Your task to perform on an android device: toggle notification dots Image 0: 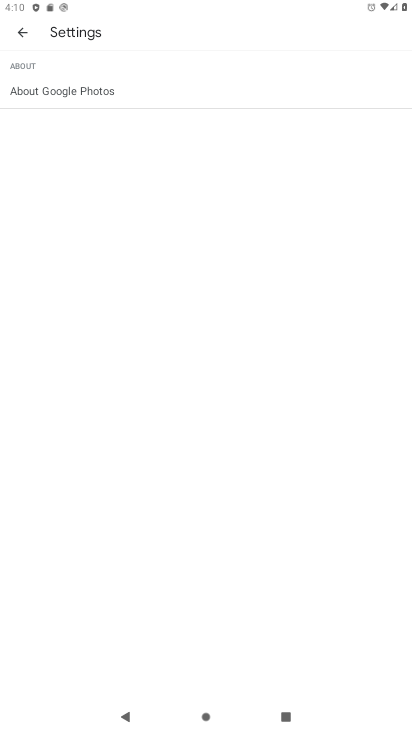
Step 0: press home button
Your task to perform on an android device: toggle notification dots Image 1: 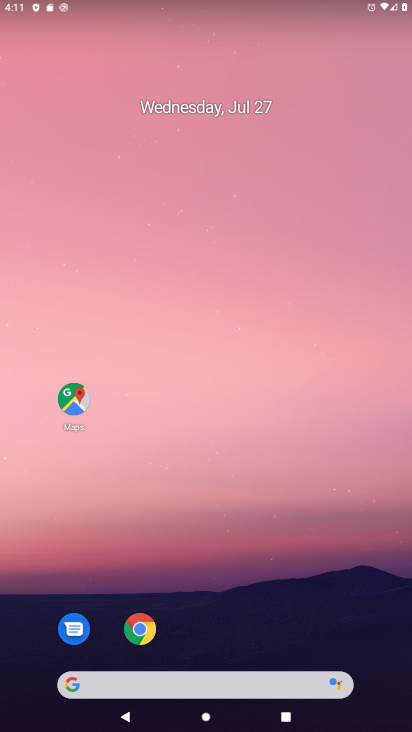
Step 1: drag from (290, 487) to (17, 210)
Your task to perform on an android device: toggle notification dots Image 2: 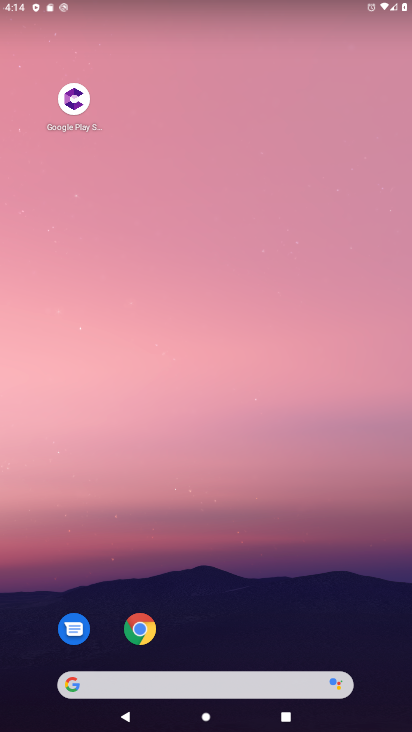
Step 2: drag from (356, 628) to (111, 36)
Your task to perform on an android device: toggle notification dots Image 3: 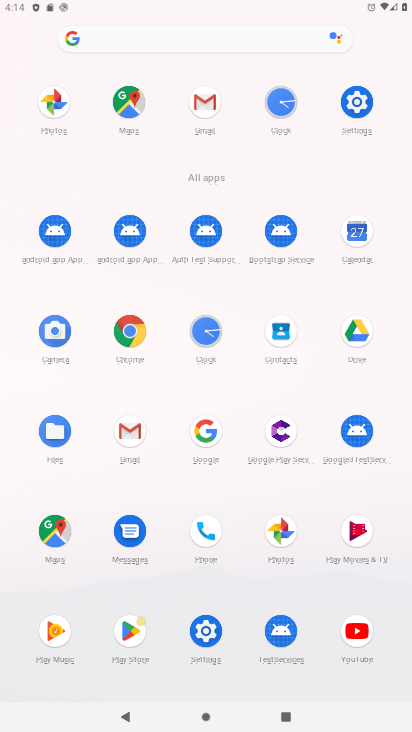
Step 3: click (372, 116)
Your task to perform on an android device: toggle notification dots Image 4: 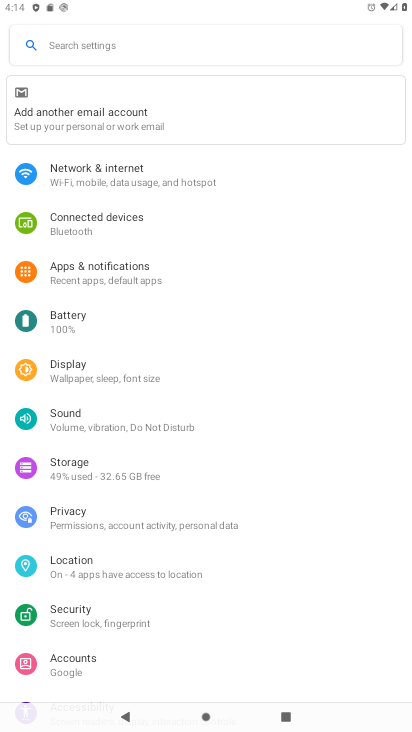
Step 4: click (86, 268)
Your task to perform on an android device: toggle notification dots Image 5: 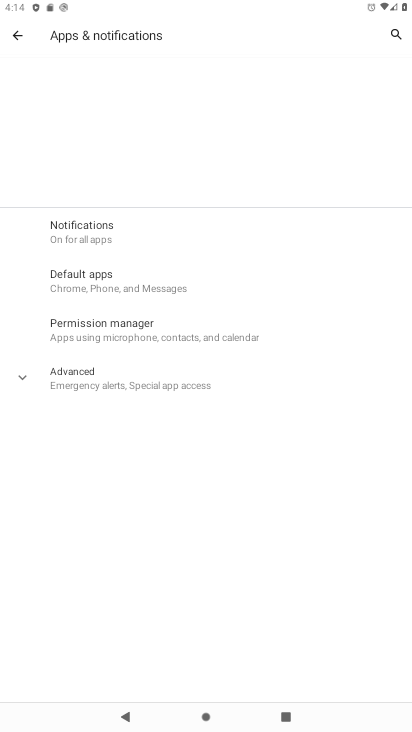
Step 5: click (73, 232)
Your task to perform on an android device: toggle notification dots Image 6: 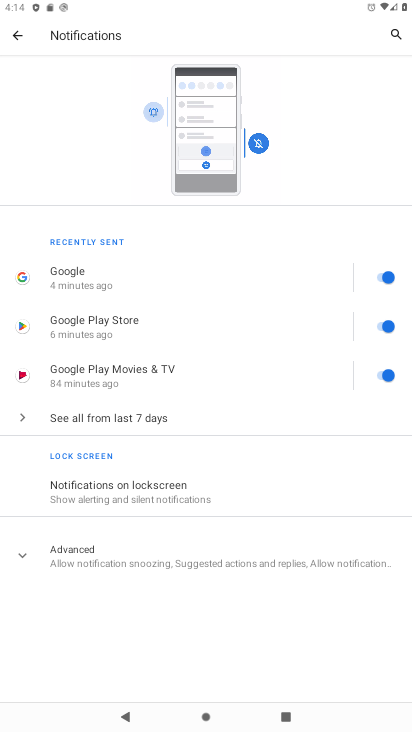
Step 6: click (102, 565)
Your task to perform on an android device: toggle notification dots Image 7: 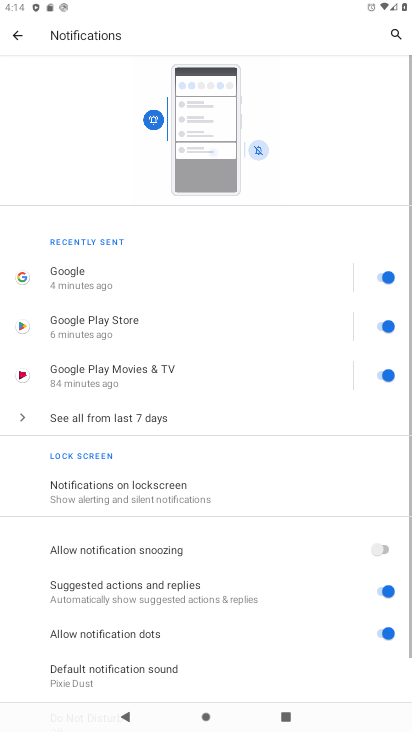
Step 7: drag from (144, 627) to (249, 268)
Your task to perform on an android device: toggle notification dots Image 8: 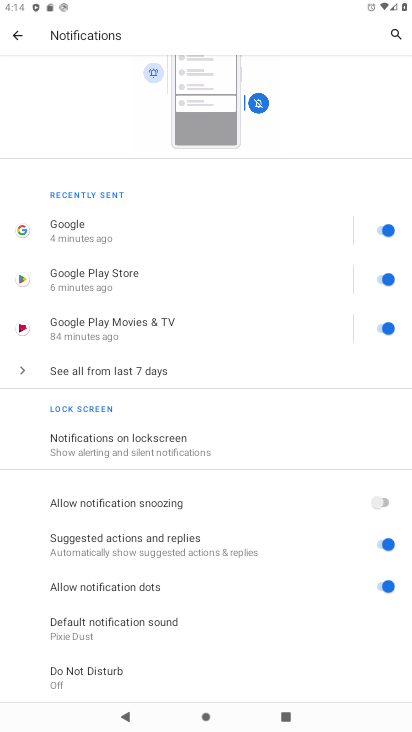
Step 8: click (384, 588)
Your task to perform on an android device: toggle notification dots Image 9: 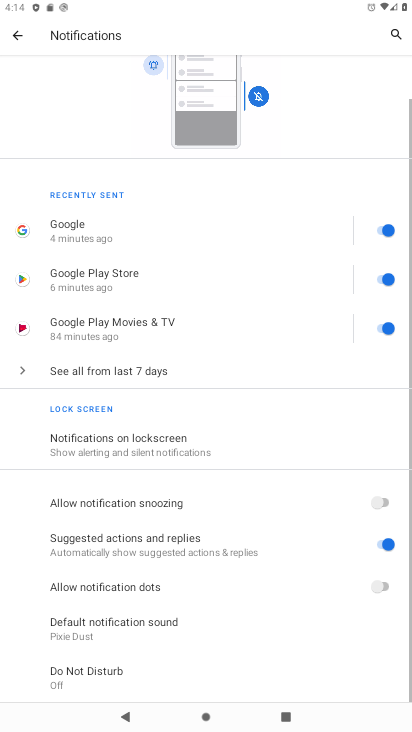
Step 9: task complete